Your task to perform on an android device: Look up the top rated 18v miter saw on Home Depot. Image 0: 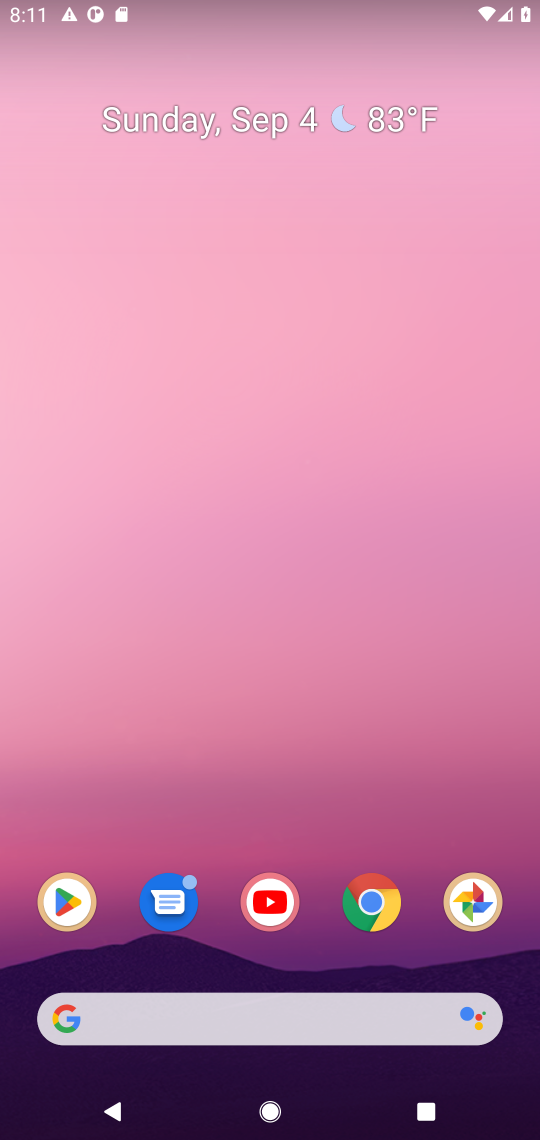
Step 0: click (283, 914)
Your task to perform on an android device: Look up the top rated 18v miter saw on Home Depot. Image 1: 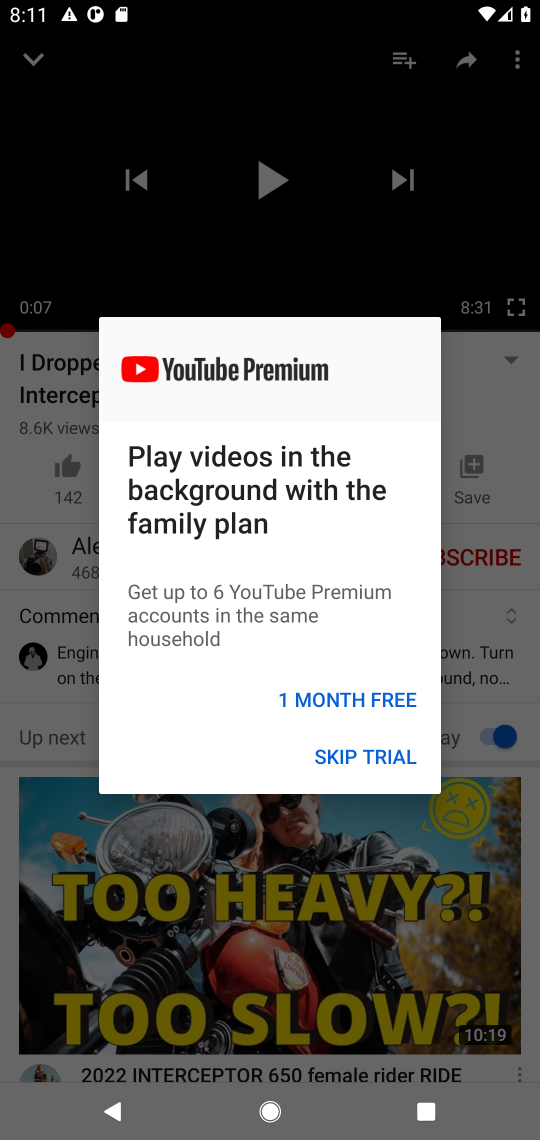
Step 1: task complete